Your task to perform on an android device: turn pop-ups off in chrome Image 0: 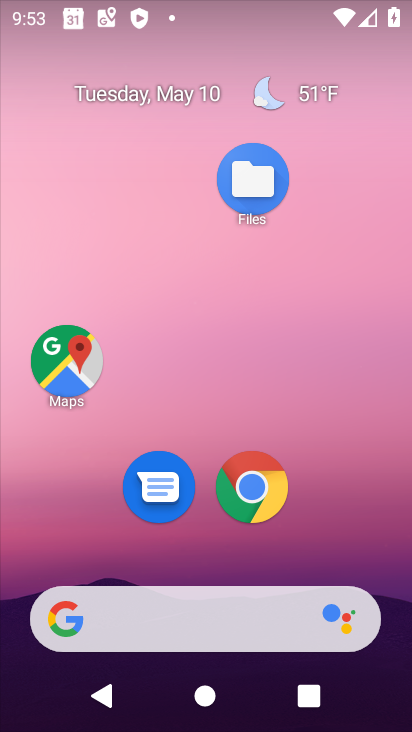
Step 0: click (244, 488)
Your task to perform on an android device: turn pop-ups off in chrome Image 1: 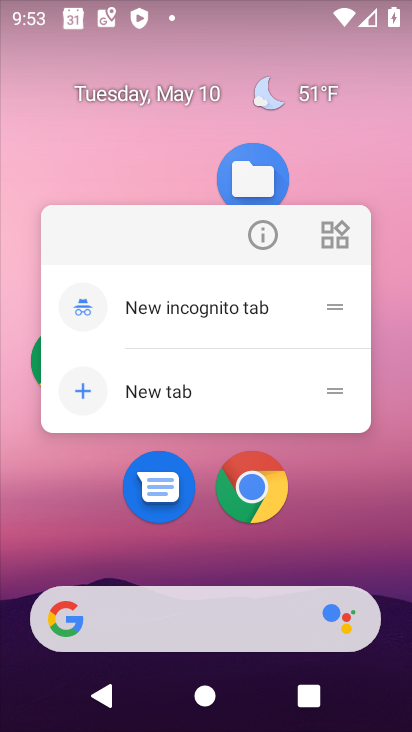
Step 1: click (243, 486)
Your task to perform on an android device: turn pop-ups off in chrome Image 2: 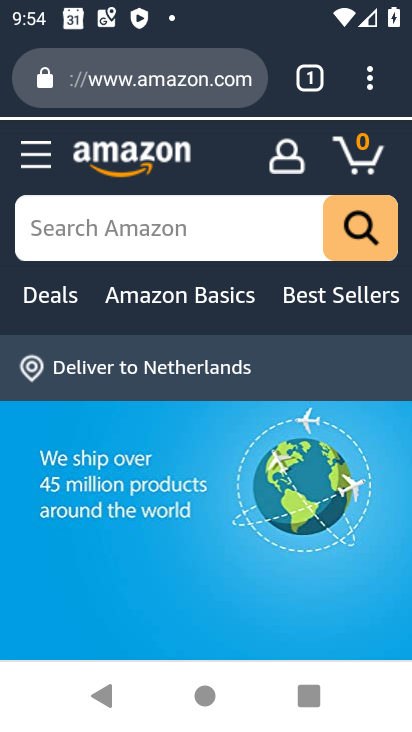
Step 2: click (354, 81)
Your task to perform on an android device: turn pop-ups off in chrome Image 3: 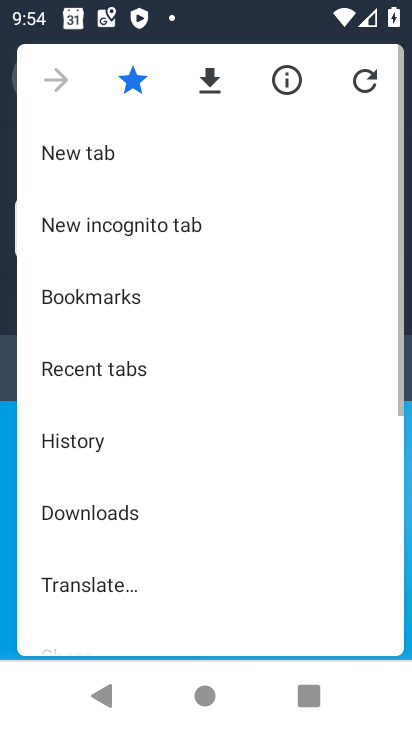
Step 3: drag from (188, 537) to (176, 191)
Your task to perform on an android device: turn pop-ups off in chrome Image 4: 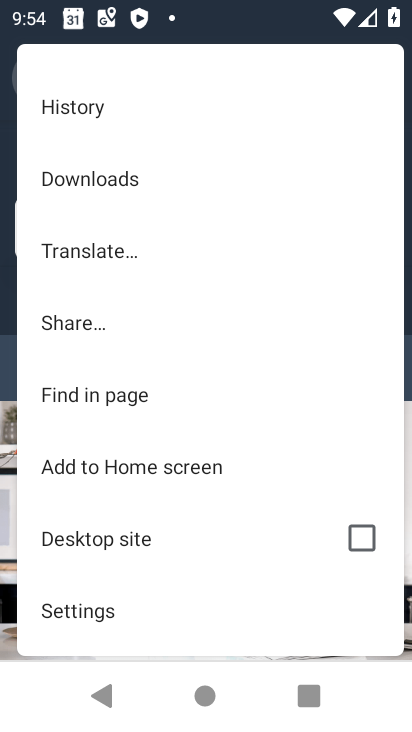
Step 4: click (94, 606)
Your task to perform on an android device: turn pop-ups off in chrome Image 5: 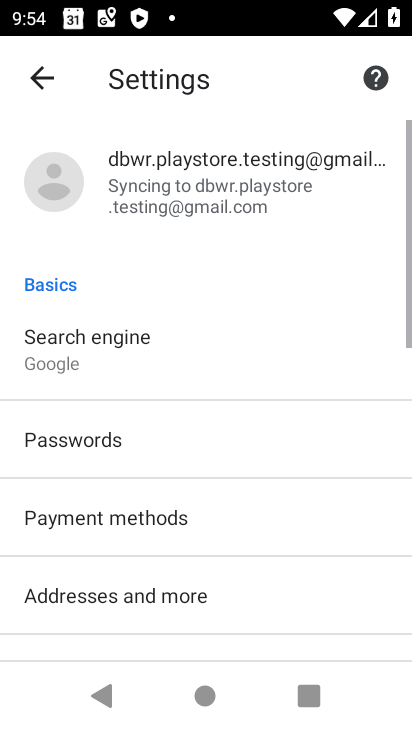
Step 5: drag from (208, 539) to (206, 68)
Your task to perform on an android device: turn pop-ups off in chrome Image 6: 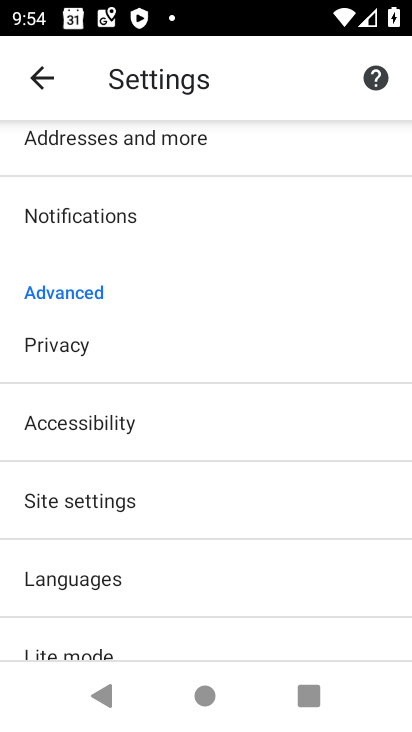
Step 6: click (100, 502)
Your task to perform on an android device: turn pop-ups off in chrome Image 7: 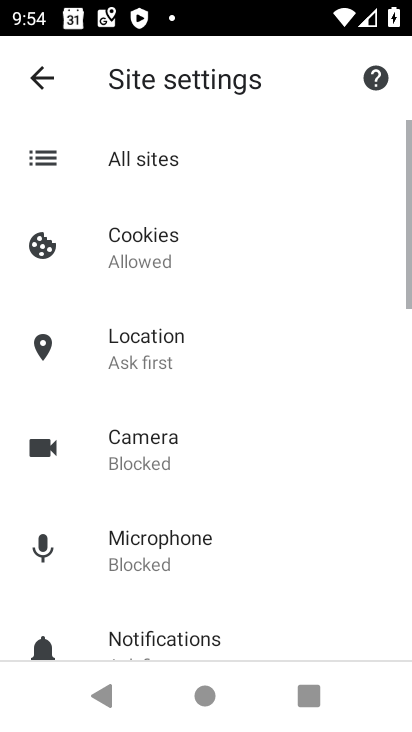
Step 7: drag from (304, 549) to (282, 47)
Your task to perform on an android device: turn pop-ups off in chrome Image 8: 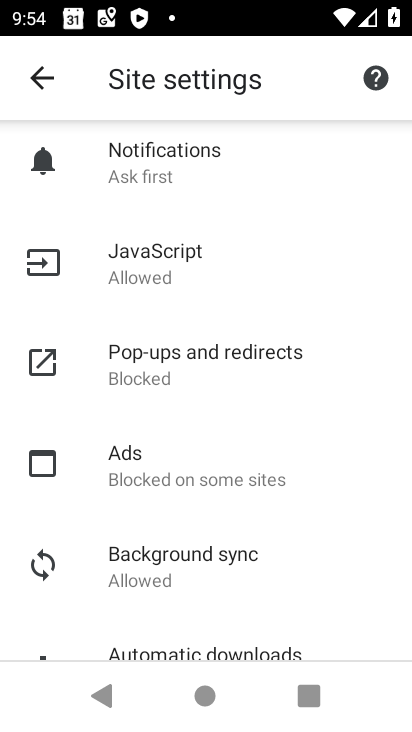
Step 8: click (148, 367)
Your task to perform on an android device: turn pop-ups off in chrome Image 9: 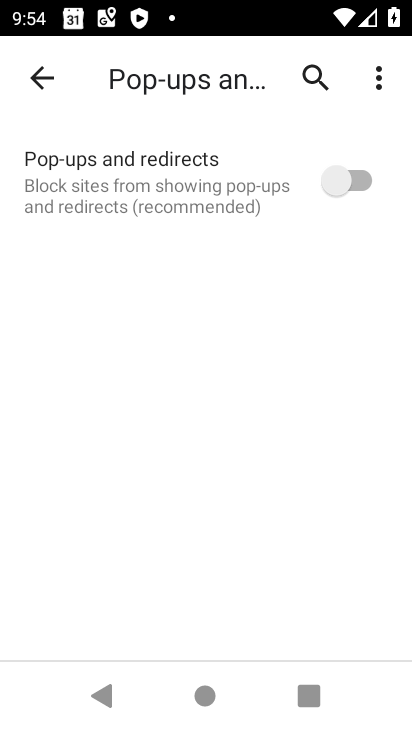
Step 9: task complete